Your task to perform on an android device: open app "PUBG MOBILE" (install if not already installed) and go to login screen Image 0: 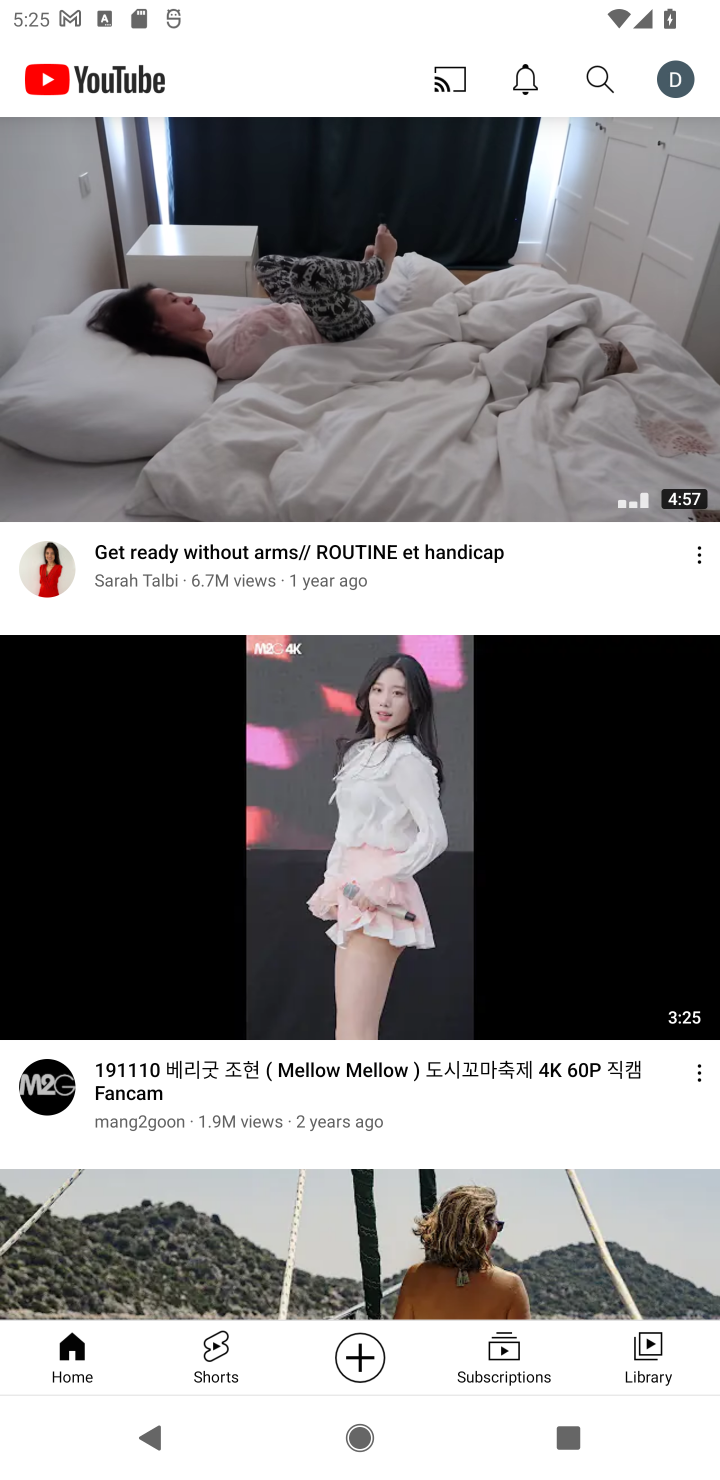
Step 0: press home button
Your task to perform on an android device: open app "PUBG MOBILE" (install if not already installed) and go to login screen Image 1: 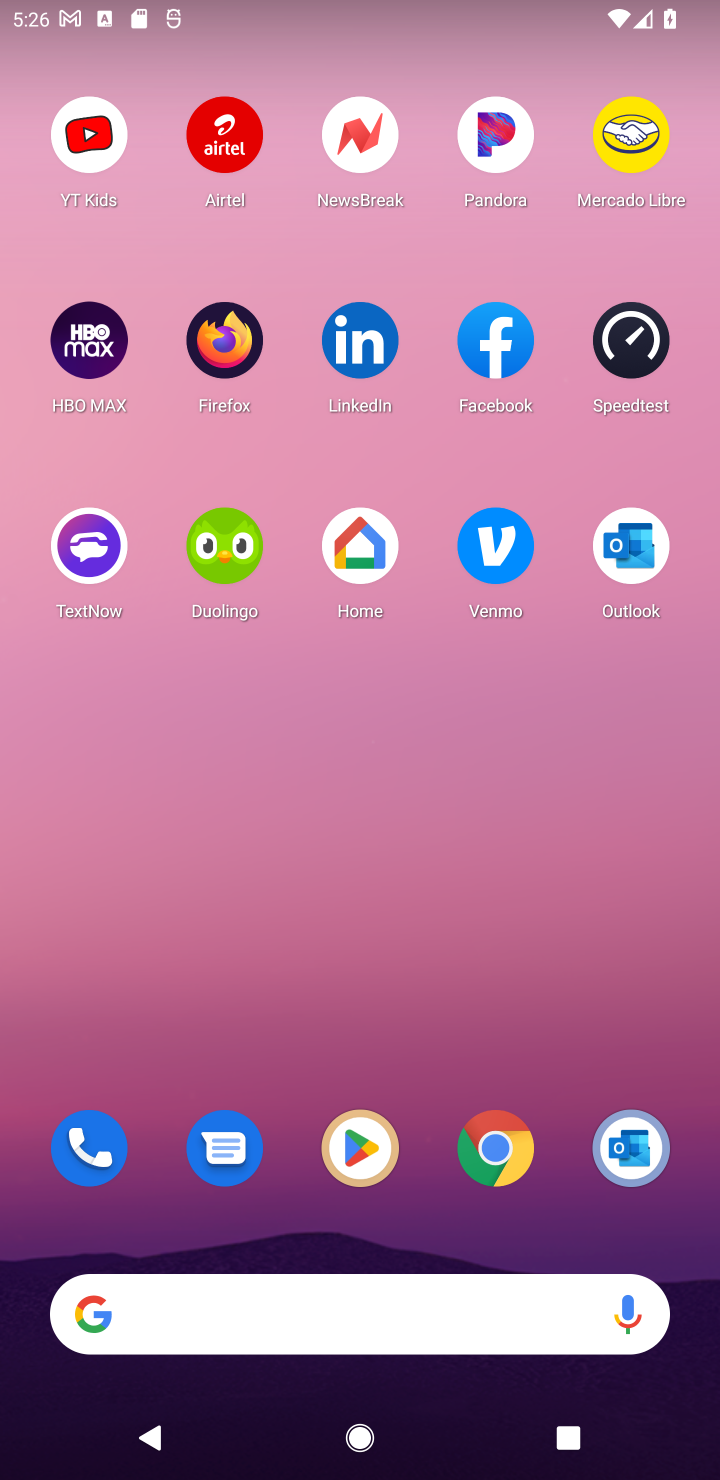
Step 1: drag from (387, 1252) to (379, 166)
Your task to perform on an android device: open app "PUBG MOBILE" (install if not already installed) and go to login screen Image 2: 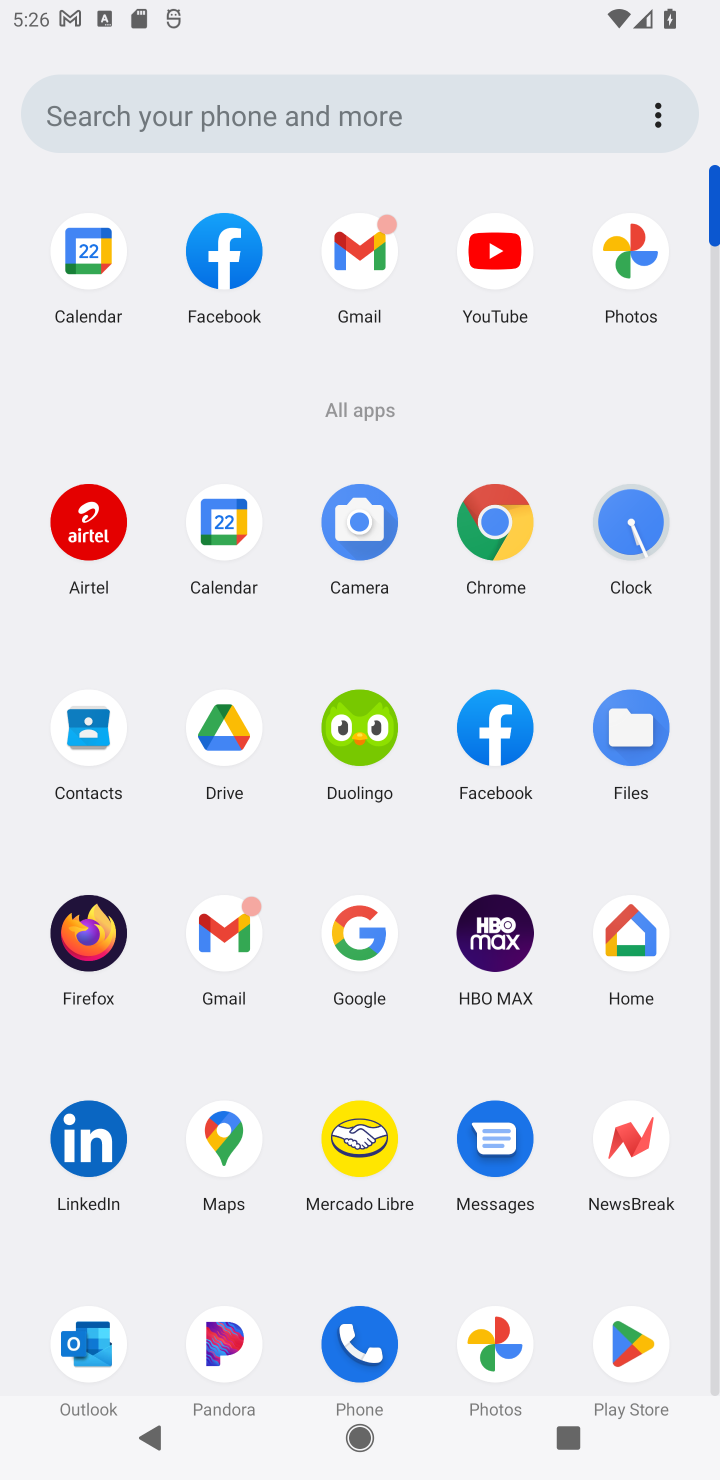
Step 2: click (620, 1335)
Your task to perform on an android device: open app "PUBG MOBILE" (install if not already installed) and go to login screen Image 3: 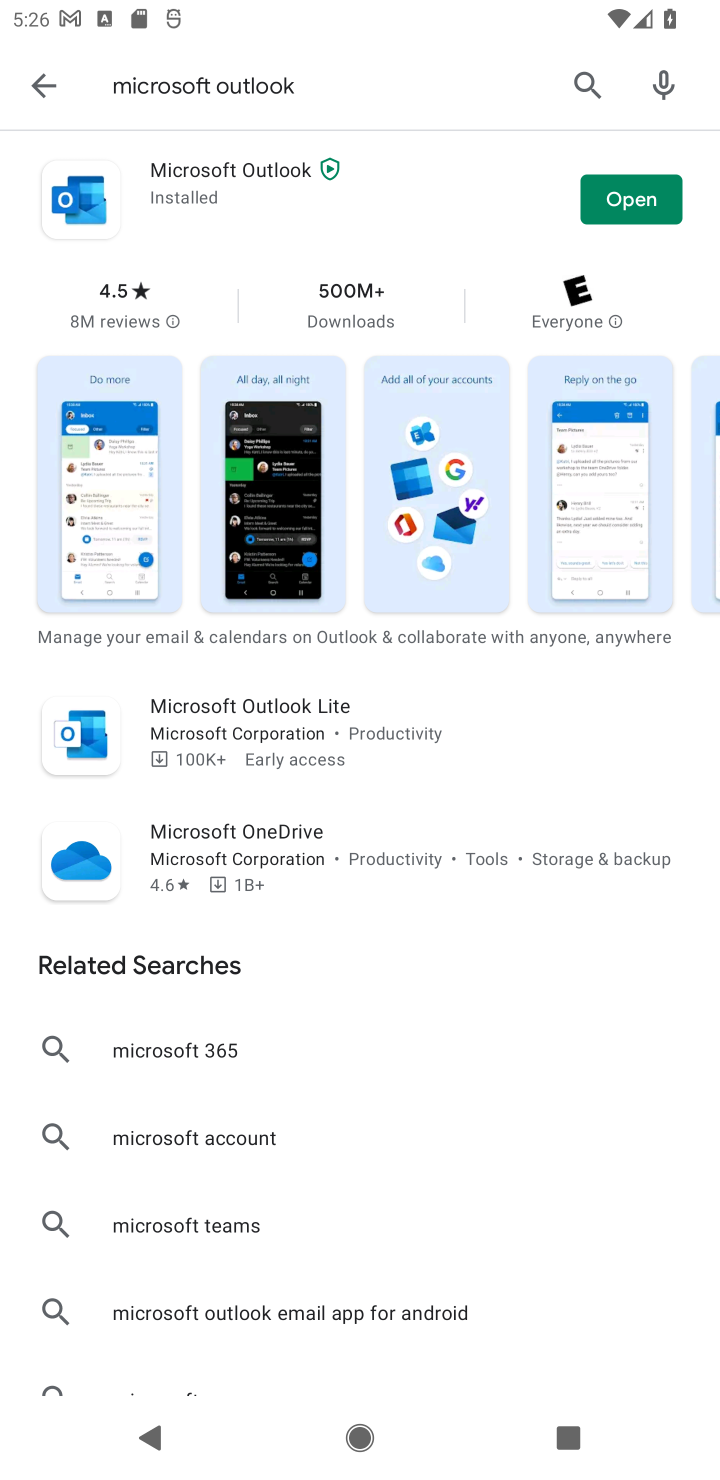
Step 3: click (586, 80)
Your task to perform on an android device: open app "PUBG MOBILE" (install if not already installed) and go to login screen Image 4: 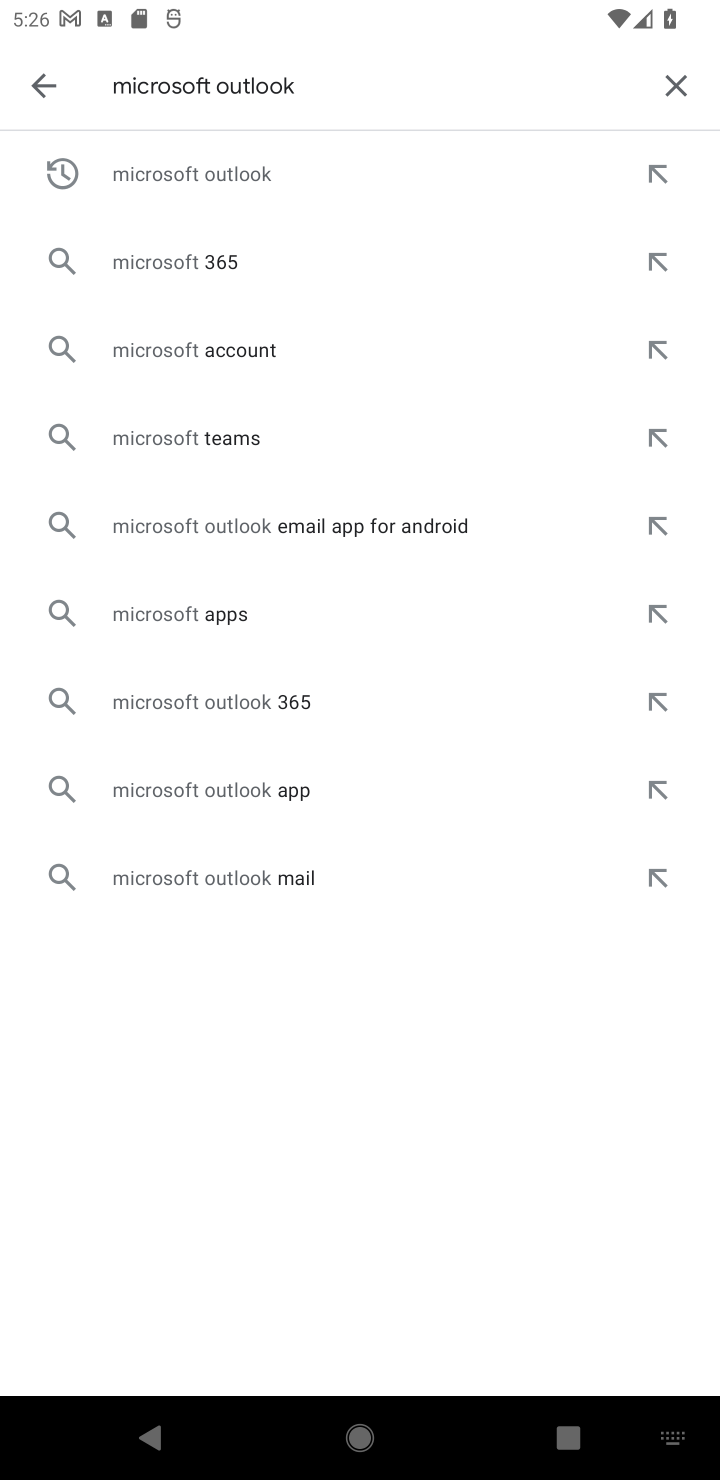
Step 4: click (667, 76)
Your task to perform on an android device: open app "PUBG MOBILE" (install if not already installed) and go to login screen Image 5: 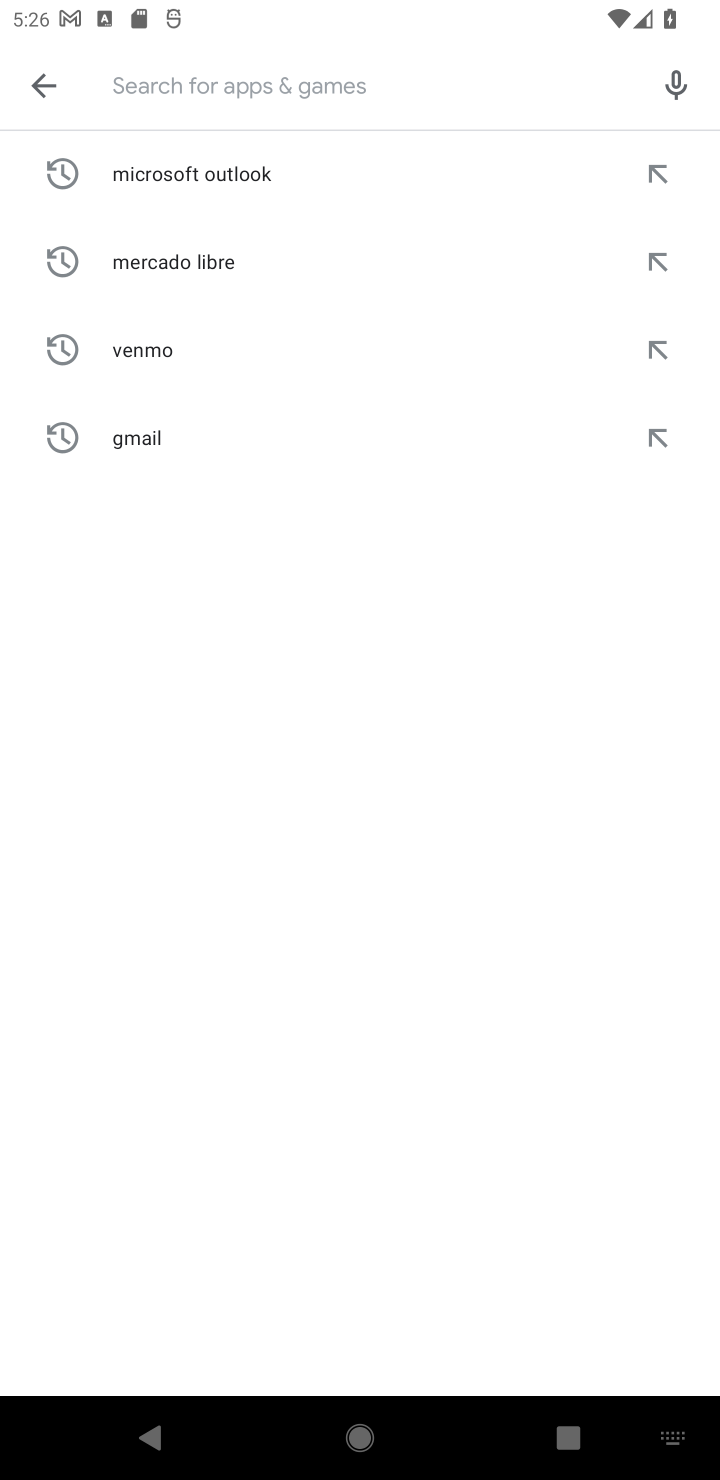
Step 5: type "PUBG MOBILE"
Your task to perform on an android device: open app "PUBG MOBILE" (install if not already installed) and go to login screen Image 6: 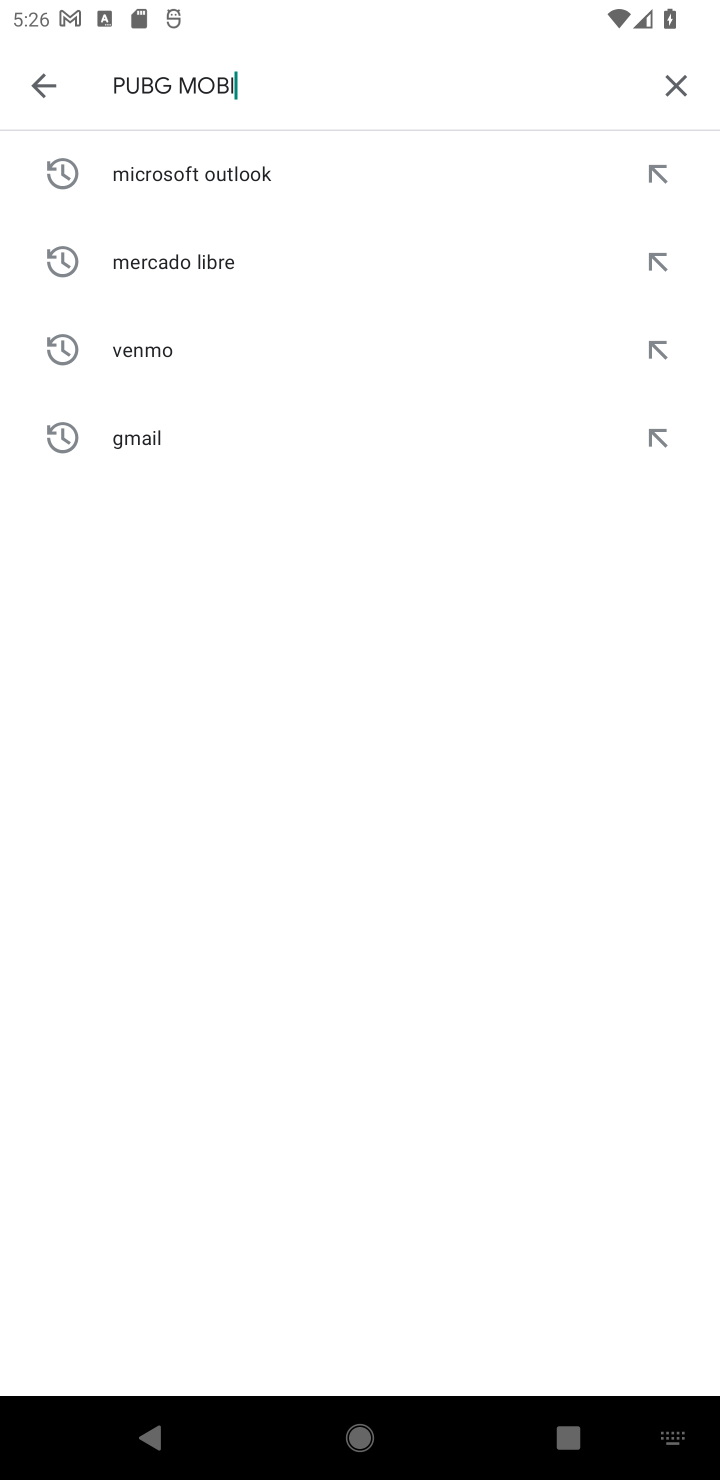
Step 6: type ""
Your task to perform on an android device: open app "PUBG MOBILE" (install if not already installed) and go to login screen Image 7: 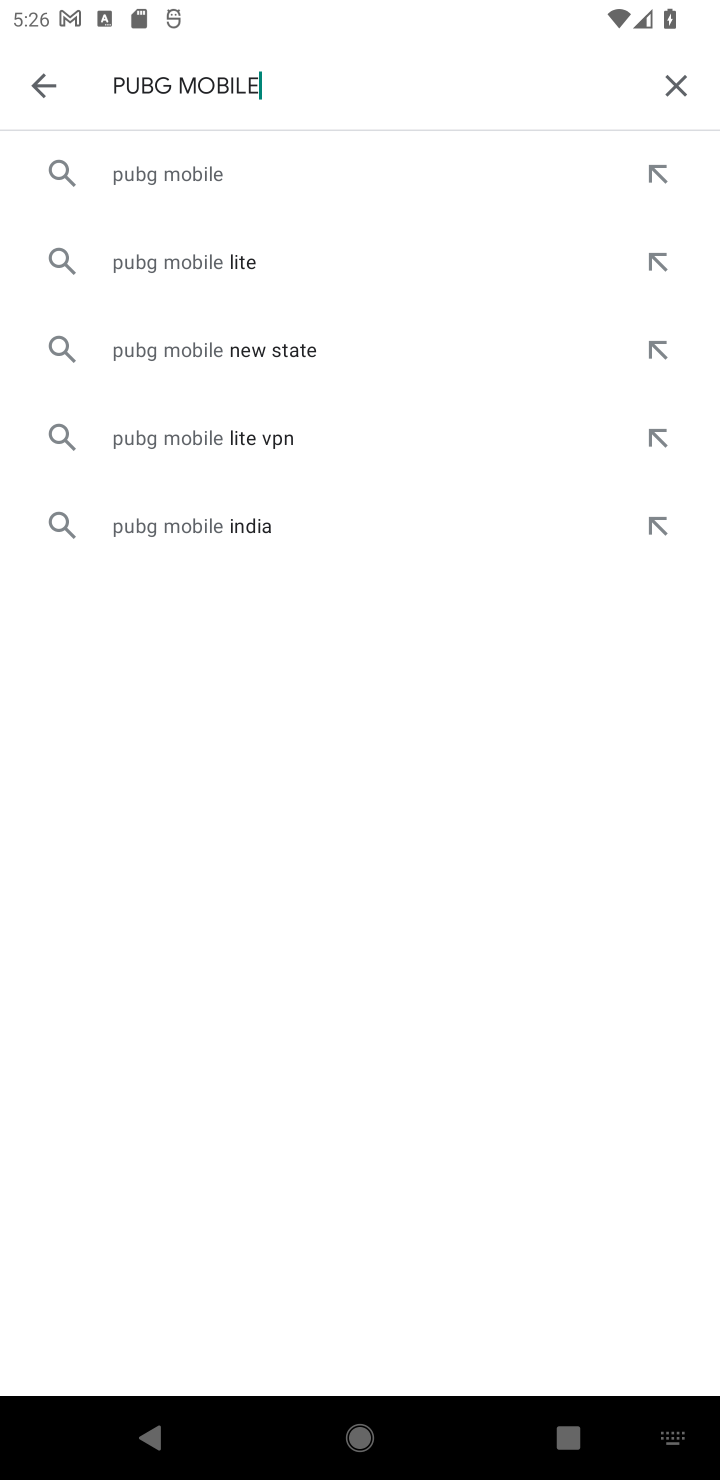
Step 7: click (192, 162)
Your task to perform on an android device: open app "PUBG MOBILE" (install if not already installed) and go to login screen Image 8: 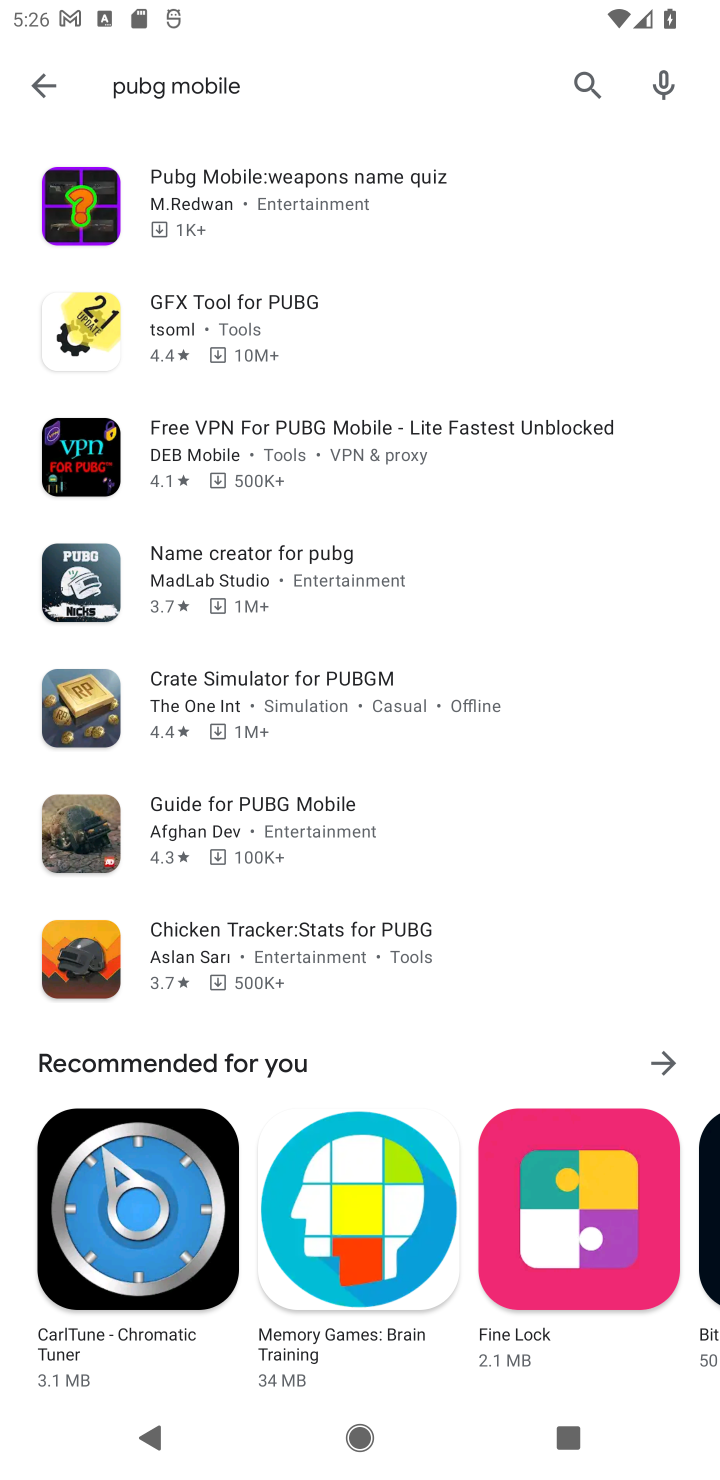
Step 8: task complete